Your task to perform on an android device: Go to Maps Image 0: 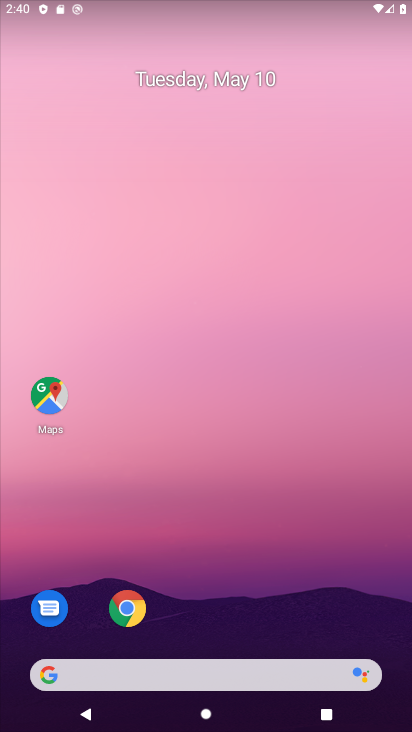
Step 0: click (49, 391)
Your task to perform on an android device: Go to Maps Image 1: 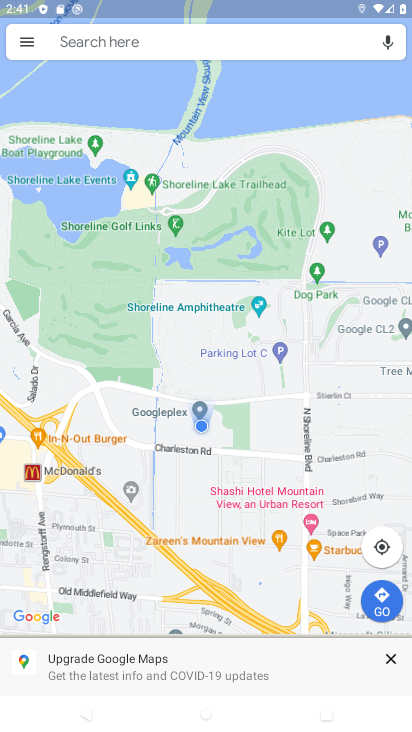
Step 1: task complete